Your task to perform on an android device: change timer sound Image 0: 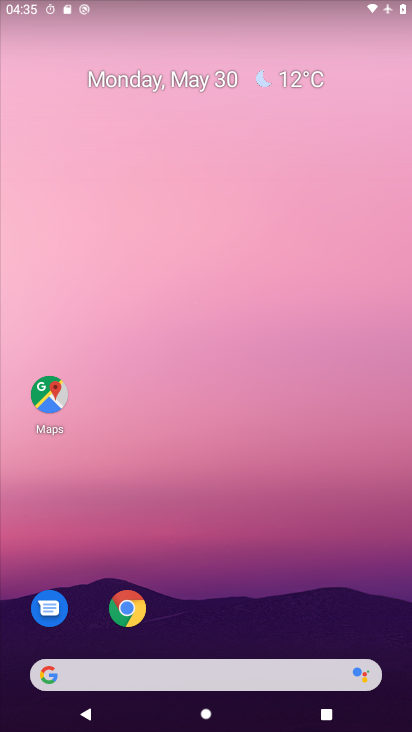
Step 0: drag from (234, 135) to (197, 59)
Your task to perform on an android device: change timer sound Image 1: 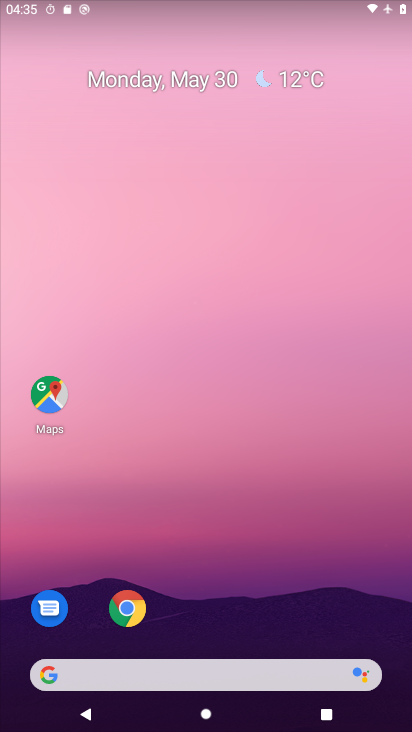
Step 1: drag from (327, 501) to (148, 73)
Your task to perform on an android device: change timer sound Image 2: 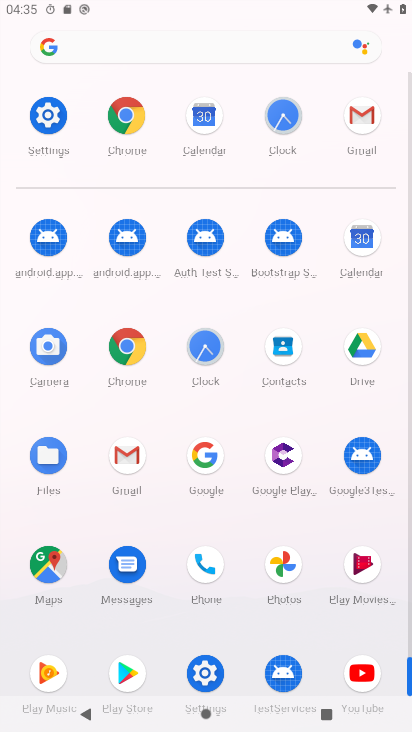
Step 2: click (282, 118)
Your task to perform on an android device: change timer sound Image 3: 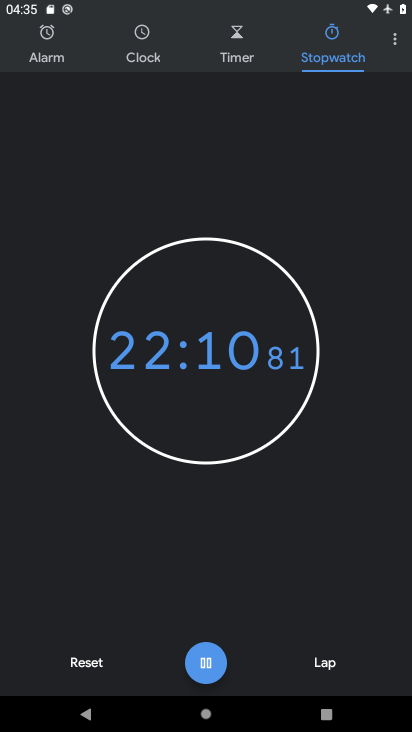
Step 3: click (394, 44)
Your task to perform on an android device: change timer sound Image 4: 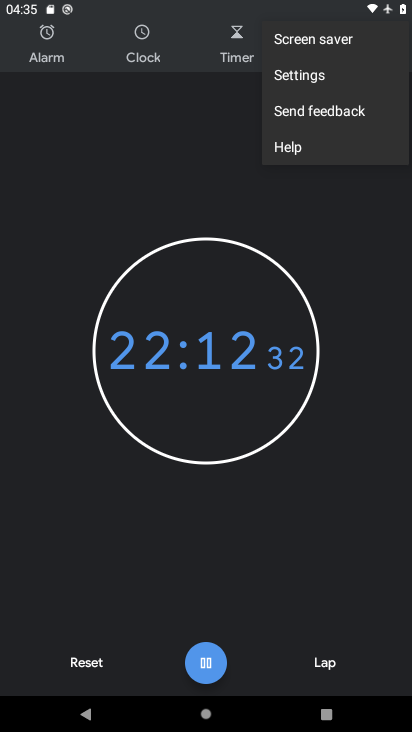
Step 4: click (303, 74)
Your task to perform on an android device: change timer sound Image 5: 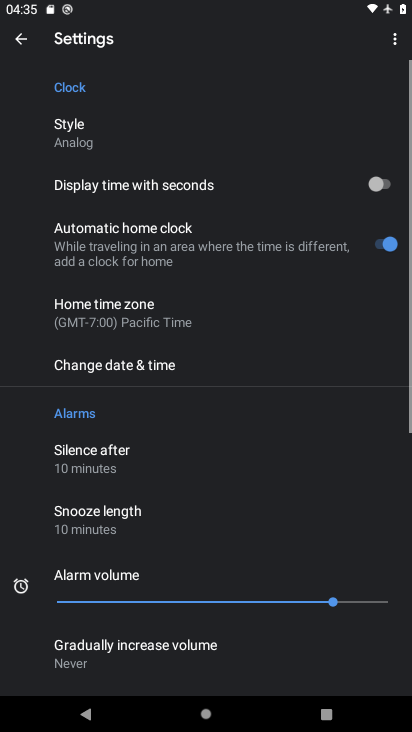
Step 5: drag from (282, 495) to (269, 1)
Your task to perform on an android device: change timer sound Image 6: 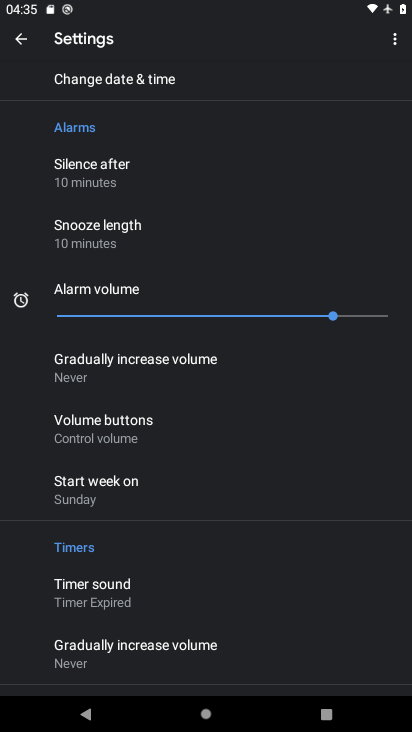
Step 6: click (166, 599)
Your task to perform on an android device: change timer sound Image 7: 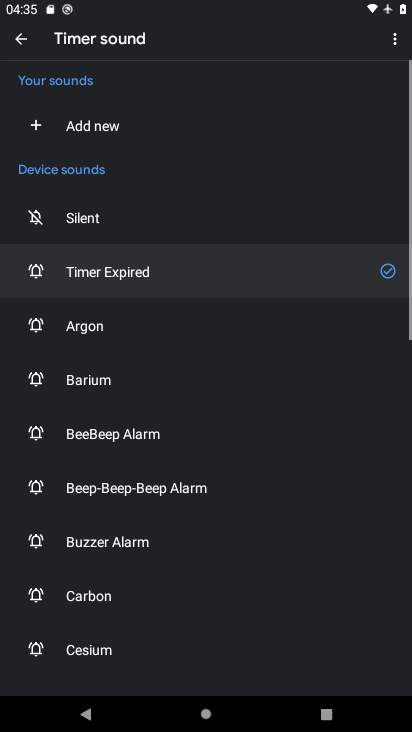
Step 7: click (249, 367)
Your task to perform on an android device: change timer sound Image 8: 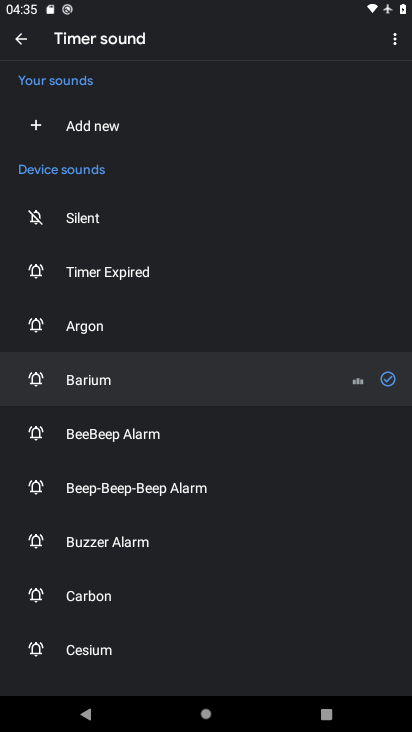
Step 8: task complete